Your task to perform on an android device: delete location history Image 0: 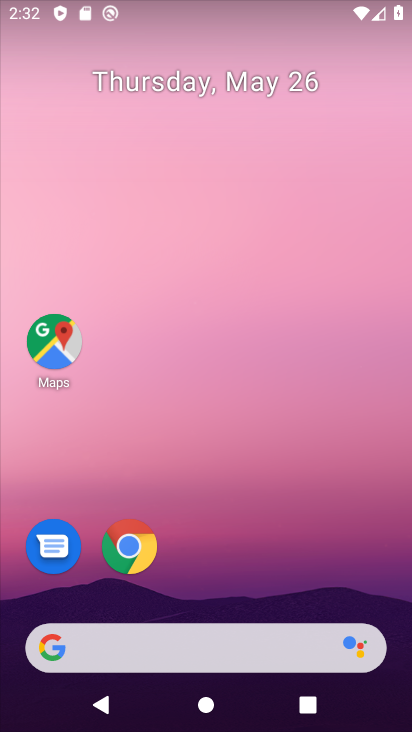
Step 0: drag from (276, 444) to (185, 46)
Your task to perform on an android device: delete location history Image 1: 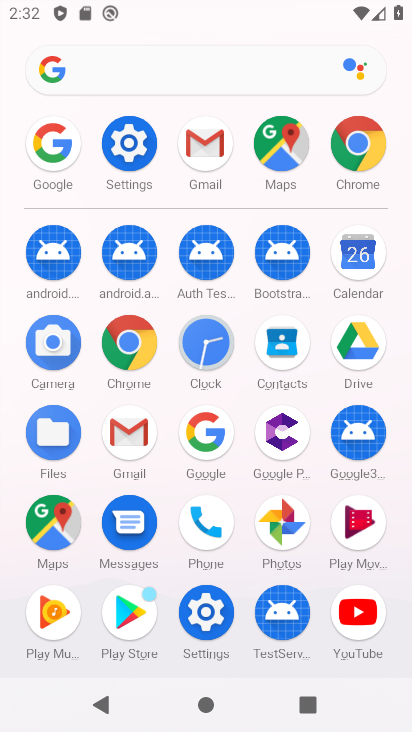
Step 1: click (122, 155)
Your task to perform on an android device: delete location history Image 2: 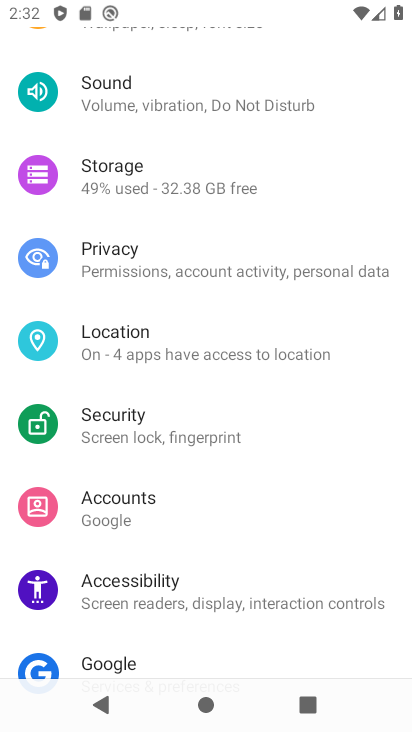
Step 2: click (196, 350)
Your task to perform on an android device: delete location history Image 3: 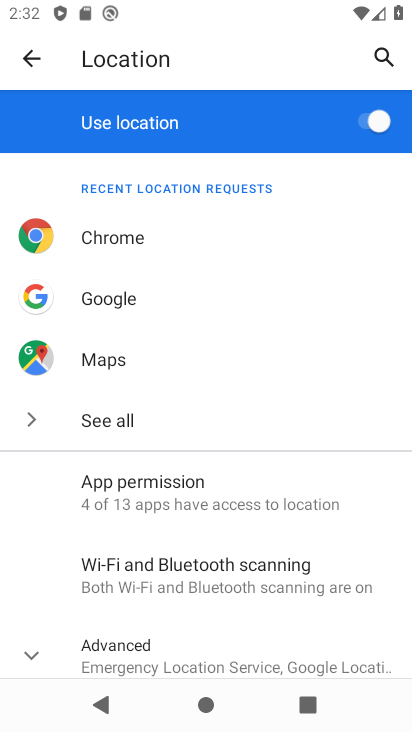
Step 3: drag from (244, 605) to (229, 220)
Your task to perform on an android device: delete location history Image 4: 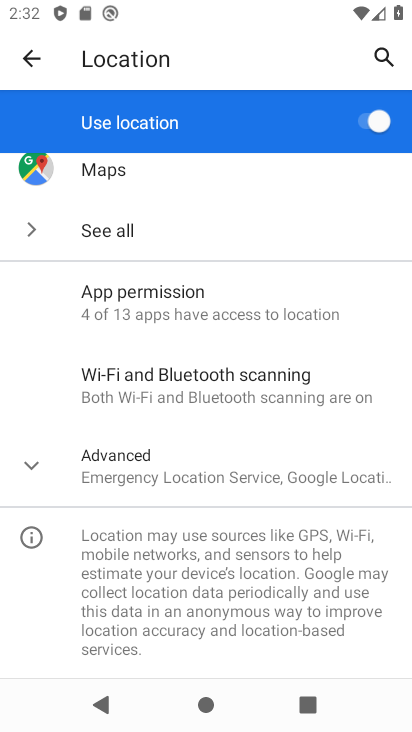
Step 4: click (175, 456)
Your task to perform on an android device: delete location history Image 5: 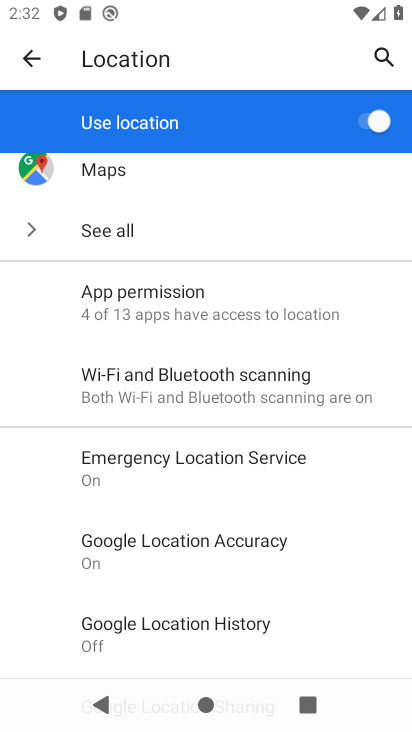
Step 5: click (222, 626)
Your task to perform on an android device: delete location history Image 6: 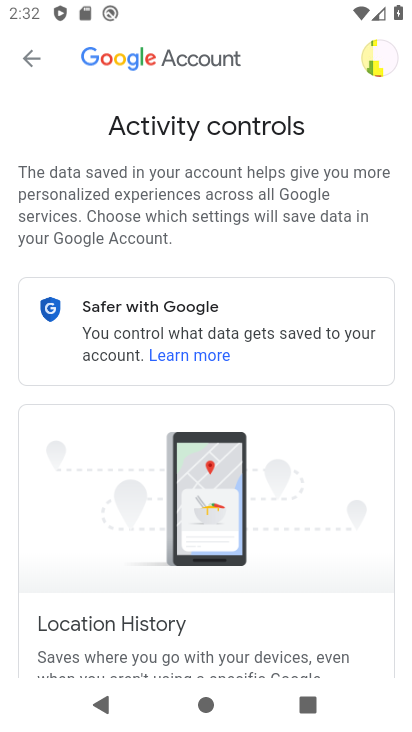
Step 6: drag from (264, 525) to (259, 183)
Your task to perform on an android device: delete location history Image 7: 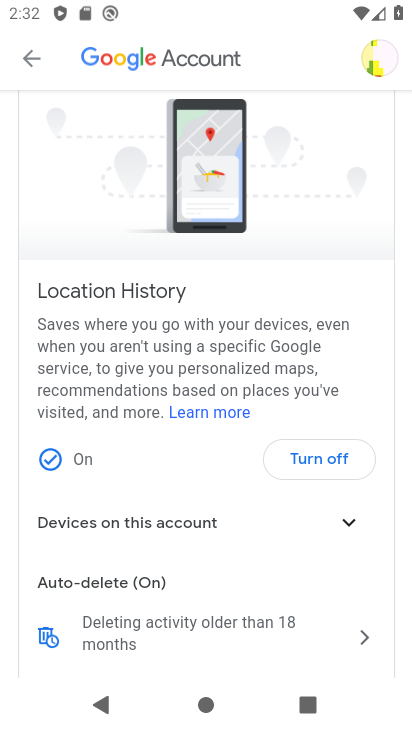
Step 7: click (45, 638)
Your task to perform on an android device: delete location history Image 8: 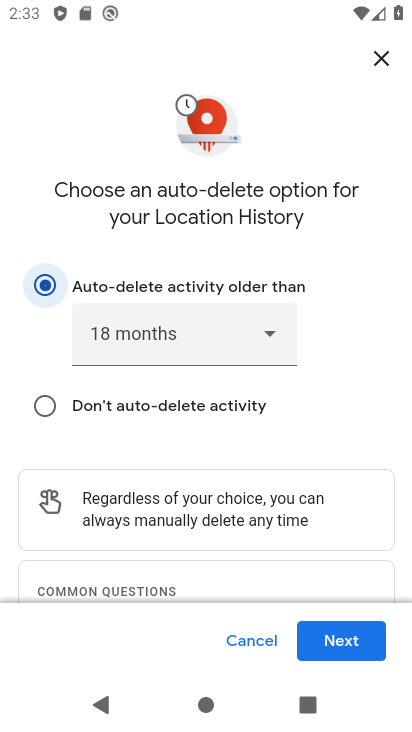
Step 8: drag from (175, 536) to (185, 309)
Your task to perform on an android device: delete location history Image 9: 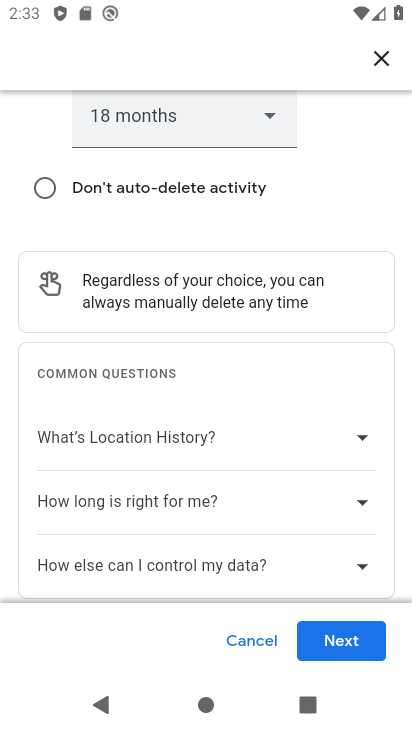
Step 9: click (48, 183)
Your task to perform on an android device: delete location history Image 10: 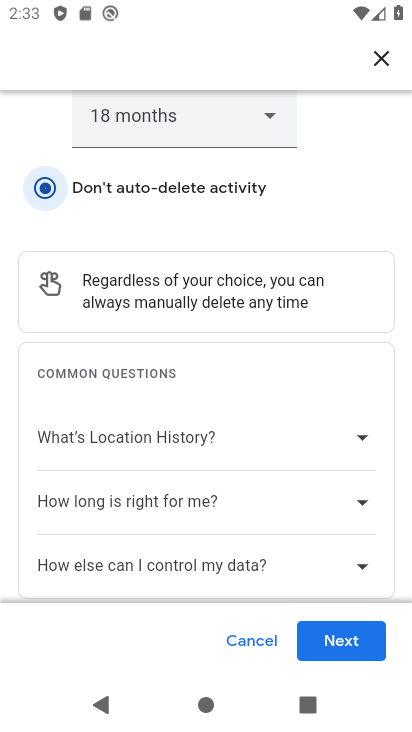
Step 10: click (363, 644)
Your task to perform on an android device: delete location history Image 11: 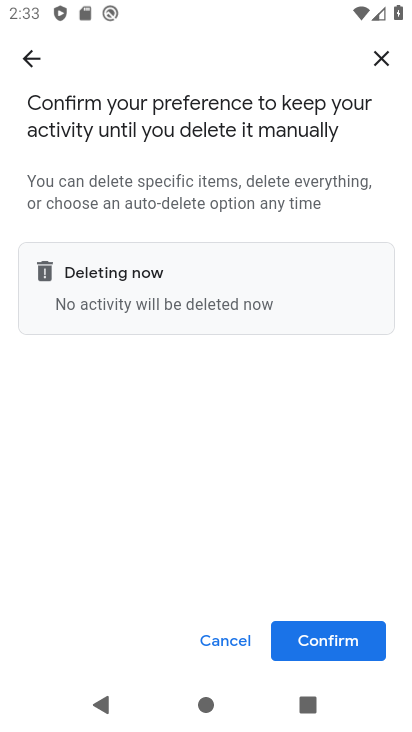
Step 11: click (341, 634)
Your task to perform on an android device: delete location history Image 12: 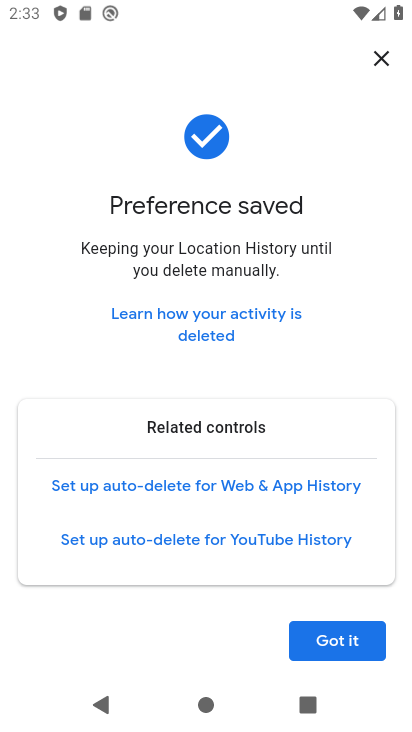
Step 12: click (343, 647)
Your task to perform on an android device: delete location history Image 13: 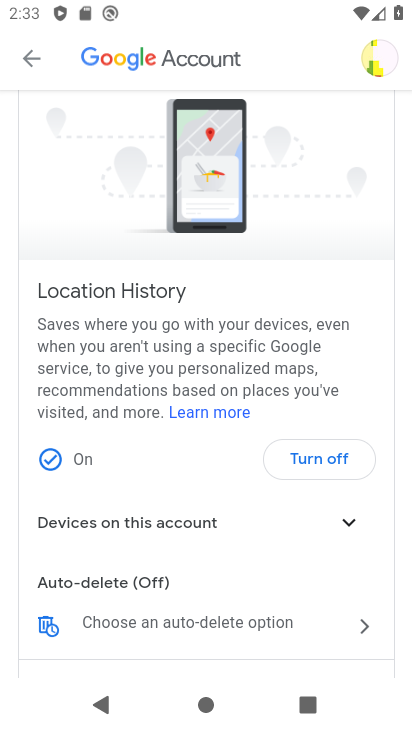
Step 13: task complete